Your task to perform on an android device: Search for seafood restaurants on Google Maps Image 0: 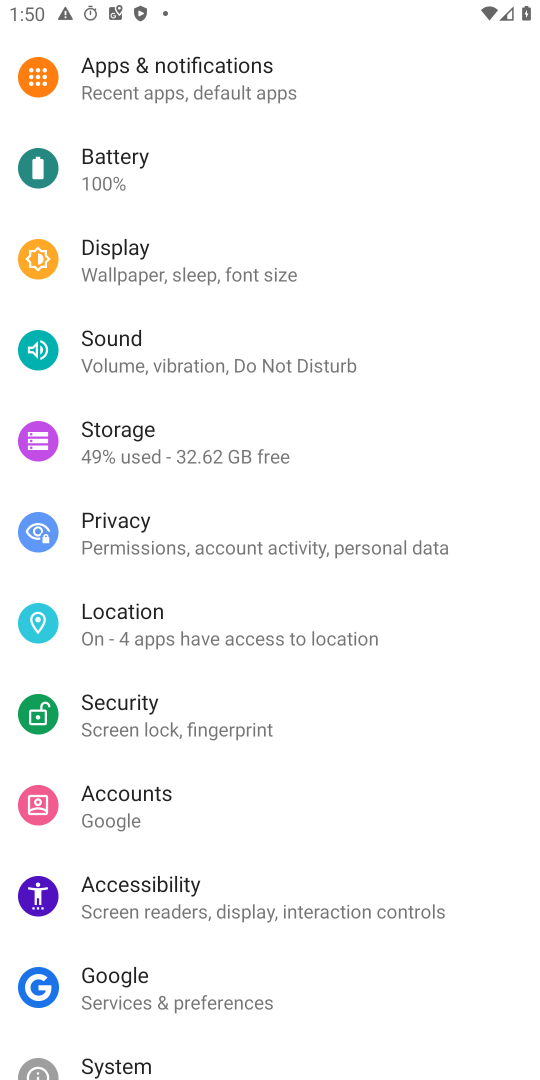
Step 0: press home button
Your task to perform on an android device: Search for seafood restaurants on Google Maps Image 1: 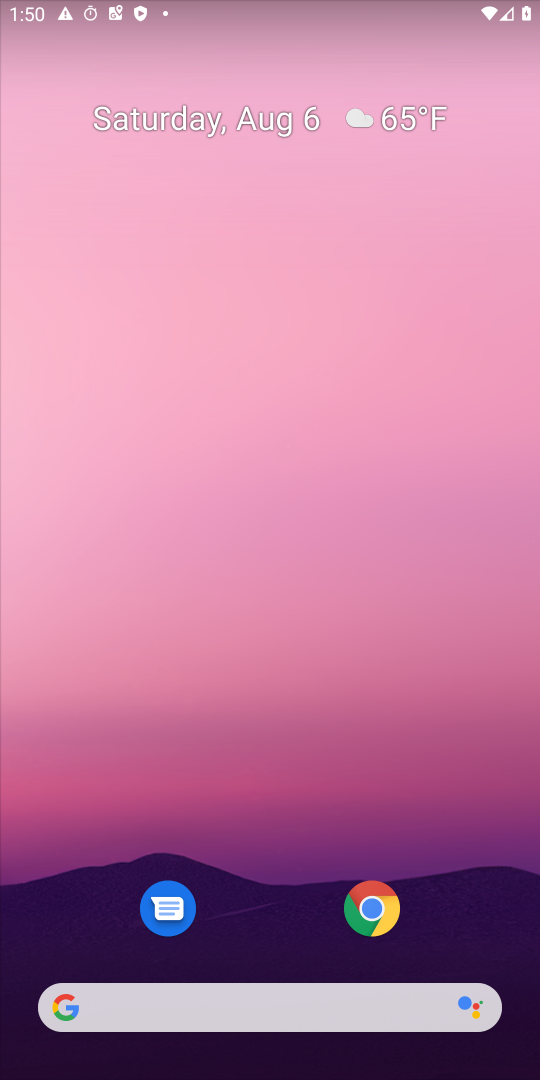
Step 1: drag from (264, 875) to (217, 26)
Your task to perform on an android device: Search for seafood restaurants on Google Maps Image 2: 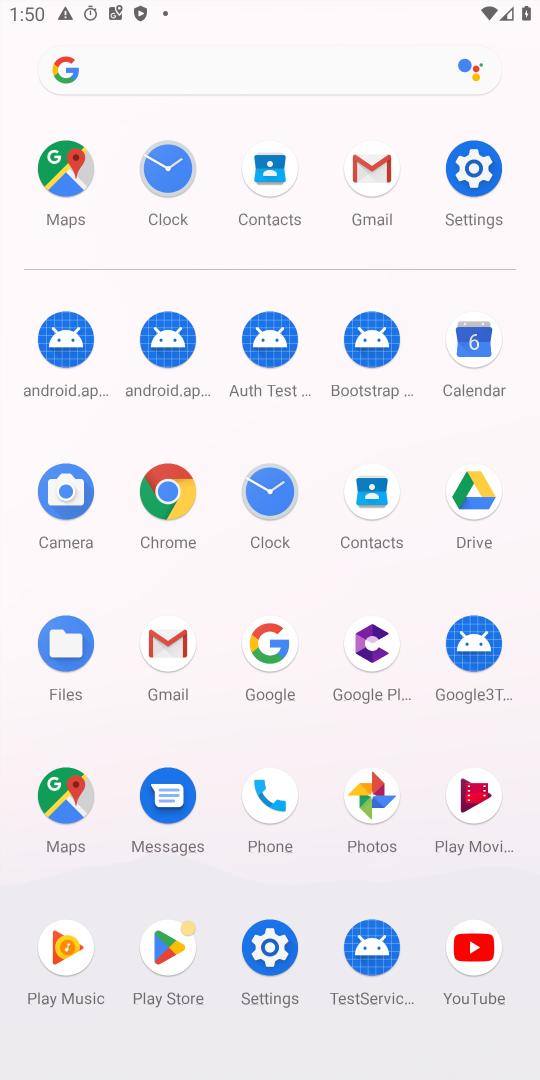
Step 2: click (81, 793)
Your task to perform on an android device: Search for seafood restaurants on Google Maps Image 3: 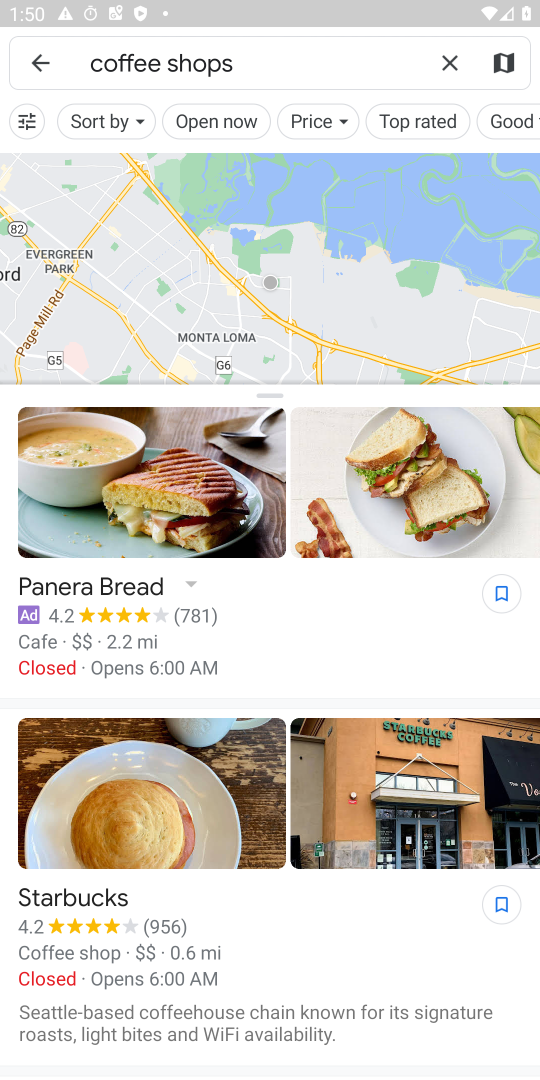
Step 3: click (450, 66)
Your task to perform on an android device: Search for seafood restaurants on Google Maps Image 4: 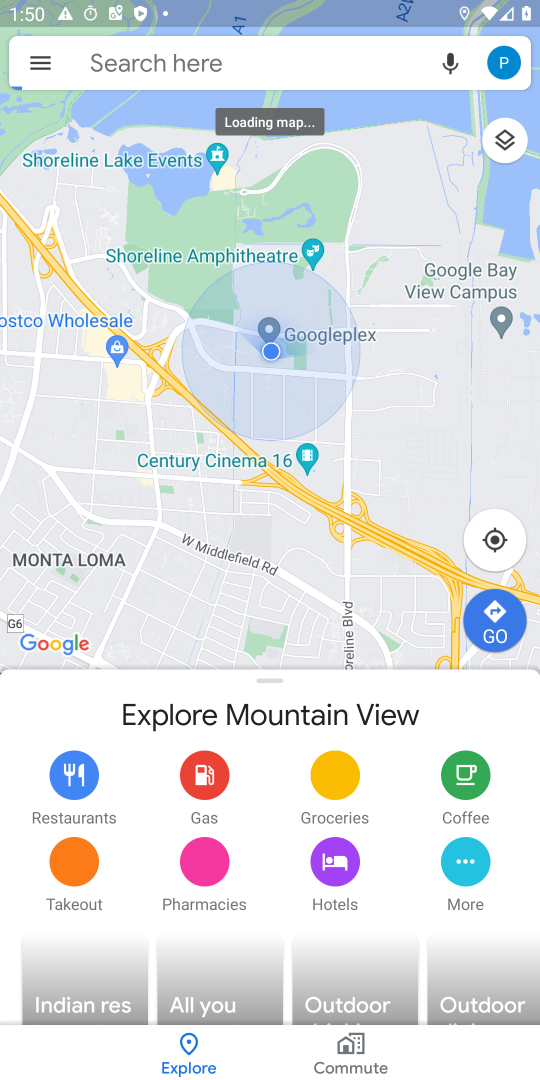
Step 4: click (148, 55)
Your task to perform on an android device: Search for seafood restaurants on Google Maps Image 5: 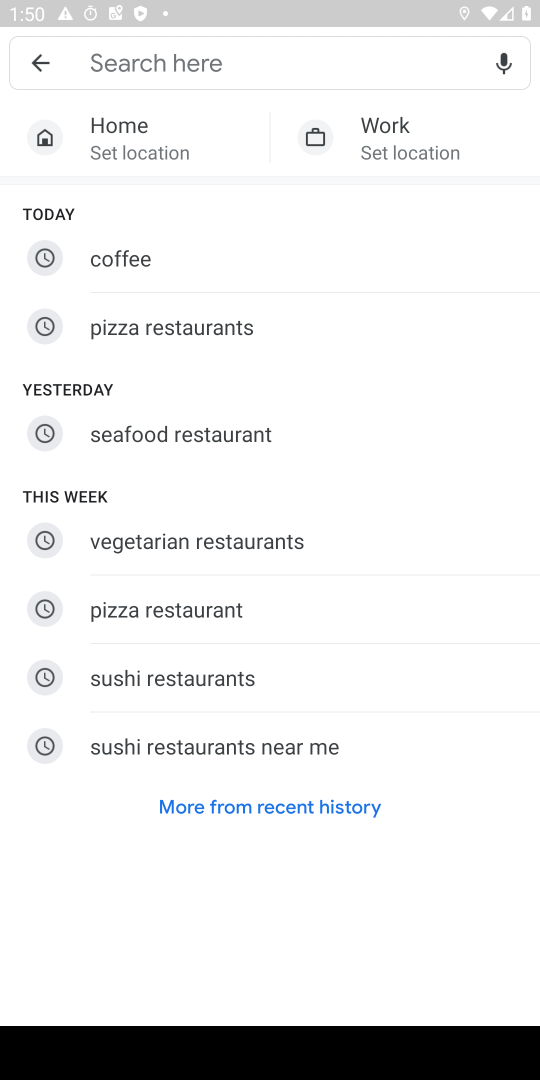
Step 5: type "seafood restaurants"
Your task to perform on an android device: Search for seafood restaurants on Google Maps Image 6: 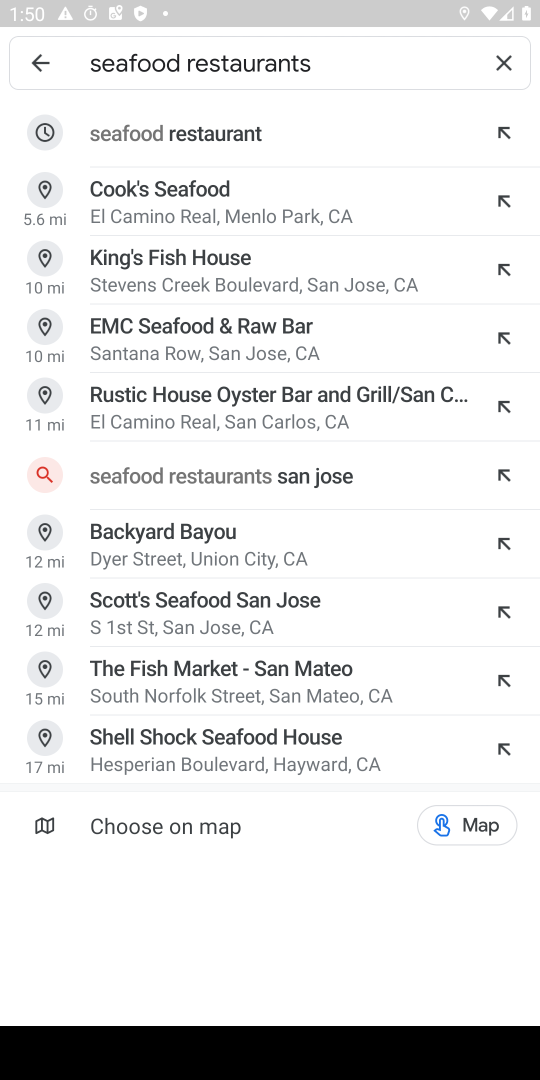
Step 6: click (304, 118)
Your task to perform on an android device: Search for seafood restaurants on Google Maps Image 7: 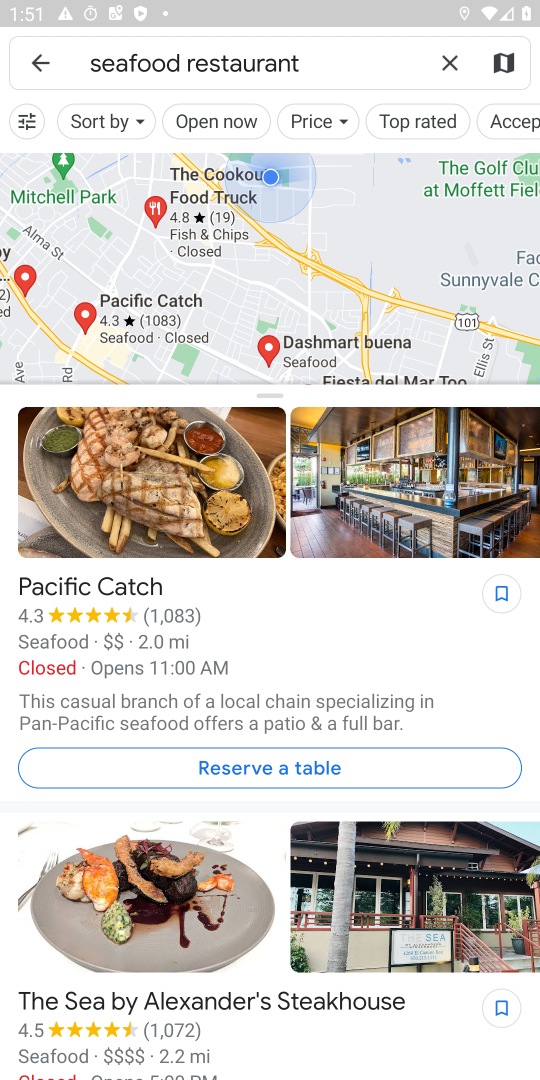
Step 7: task complete